Your task to perform on an android device: delete browsing data in the chrome app Image 0: 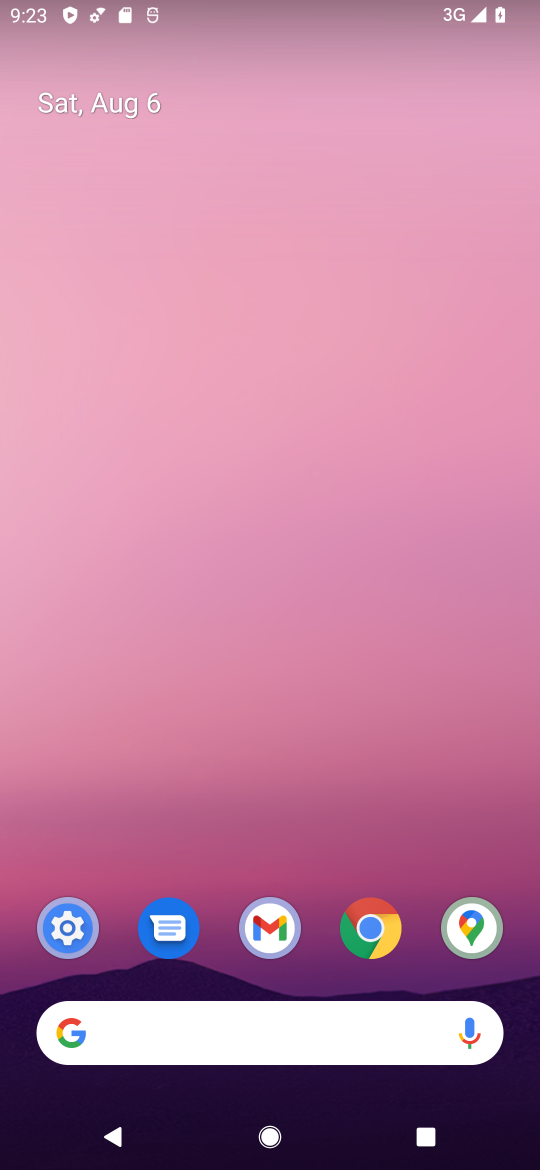
Step 0: click (372, 922)
Your task to perform on an android device: delete browsing data in the chrome app Image 1: 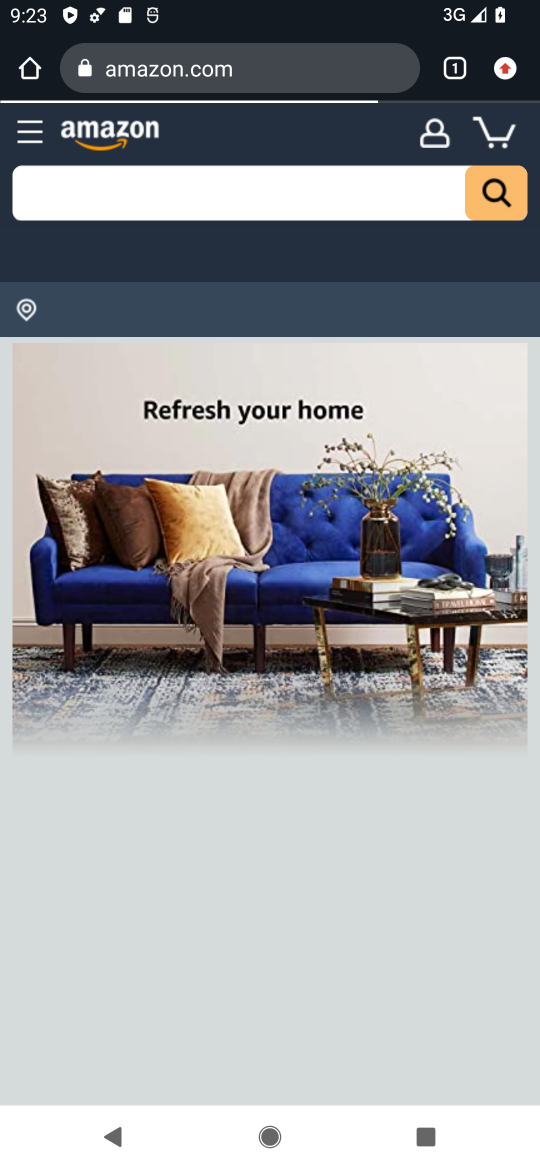
Step 1: click (509, 65)
Your task to perform on an android device: delete browsing data in the chrome app Image 2: 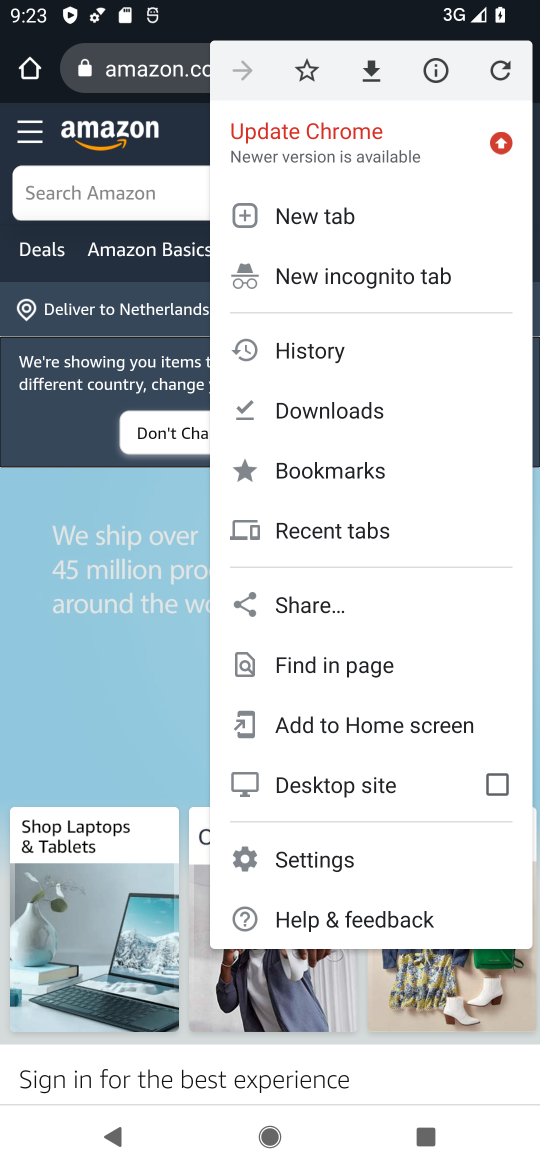
Step 2: click (304, 344)
Your task to perform on an android device: delete browsing data in the chrome app Image 3: 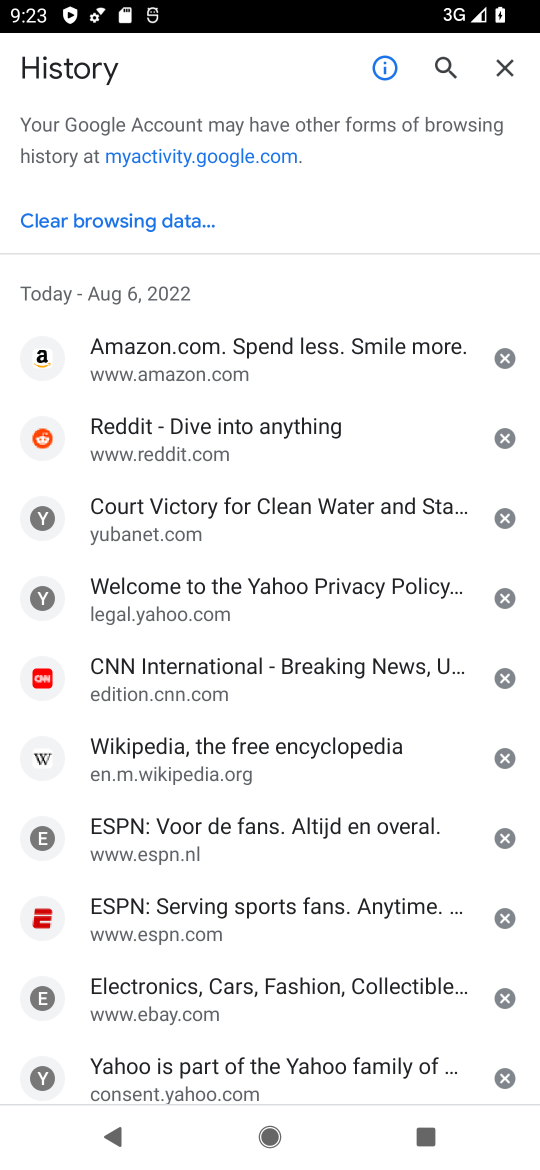
Step 3: click (115, 213)
Your task to perform on an android device: delete browsing data in the chrome app Image 4: 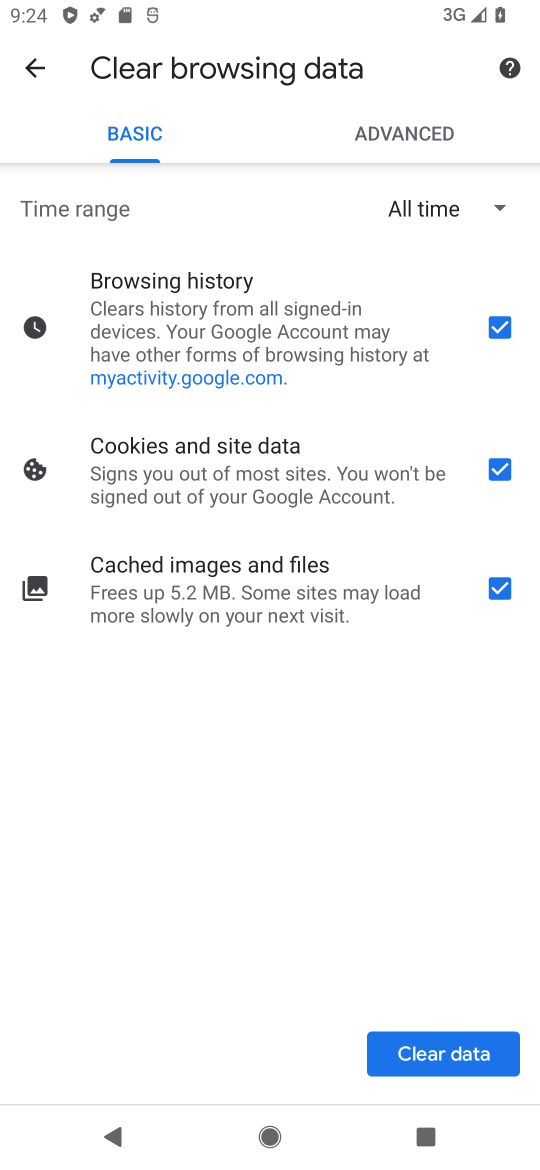
Step 4: click (438, 1064)
Your task to perform on an android device: delete browsing data in the chrome app Image 5: 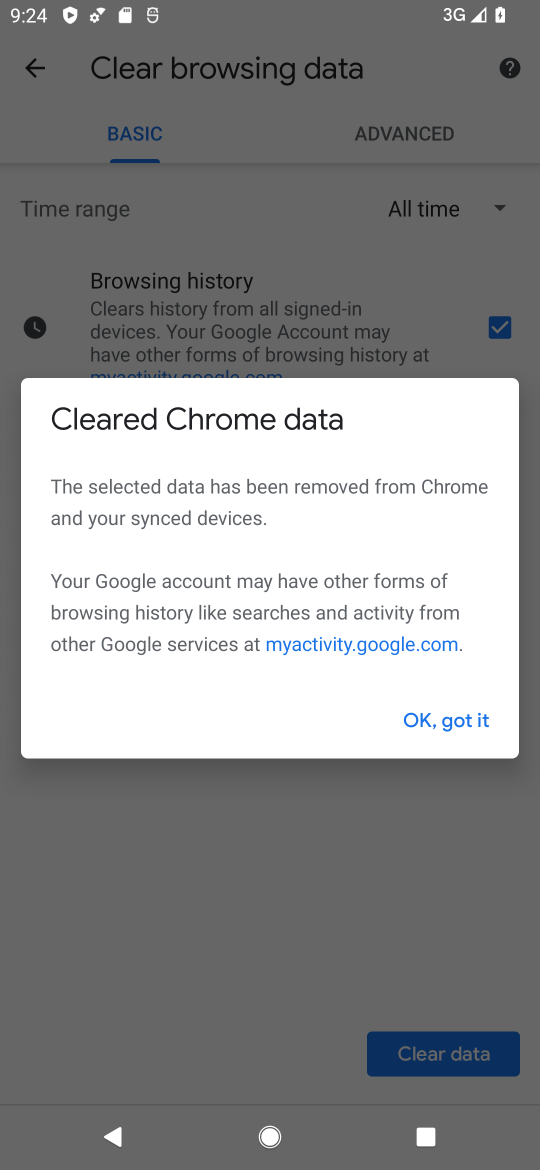
Step 5: click (452, 717)
Your task to perform on an android device: delete browsing data in the chrome app Image 6: 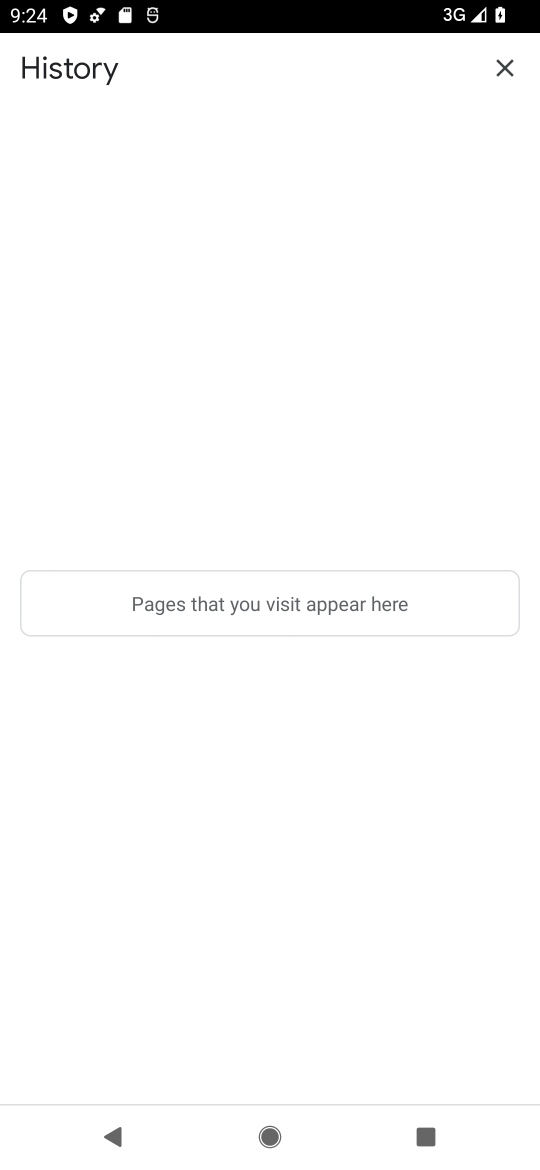
Step 6: task complete